Your task to perform on an android device: open chrome and create a bookmark for the current page Image 0: 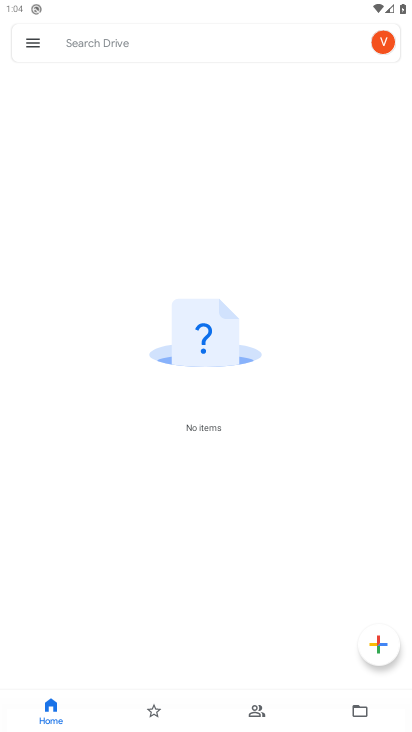
Step 0: press home button
Your task to perform on an android device: open chrome and create a bookmark for the current page Image 1: 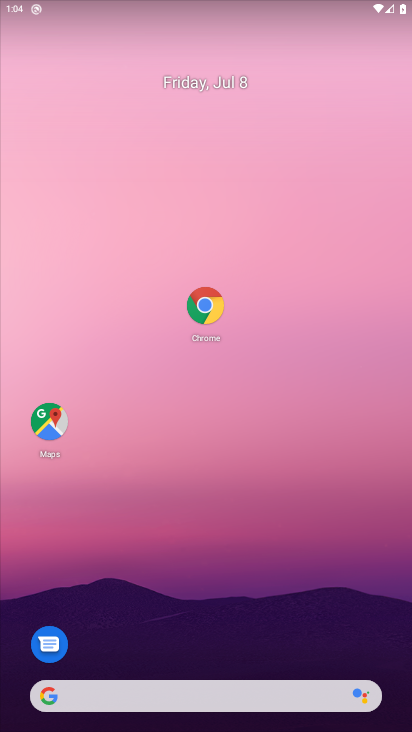
Step 1: click (202, 313)
Your task to perform on an android device: open chrome and create a bookmark for the current page Image 2: 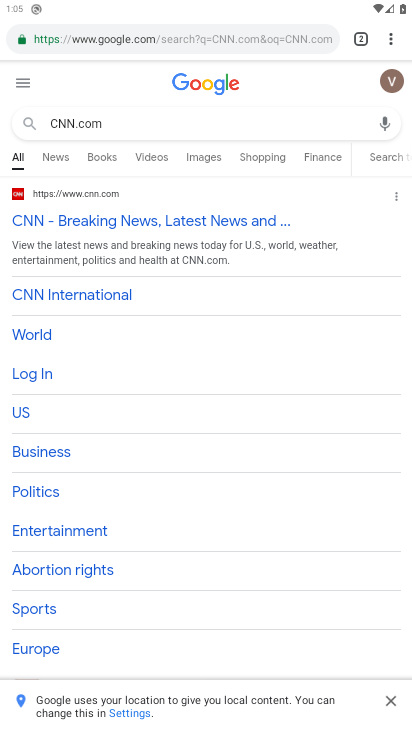
Step 2: click (386, 36)
Your task to perform on an android device: open chrome and create a bookmark for the current page Image 3: 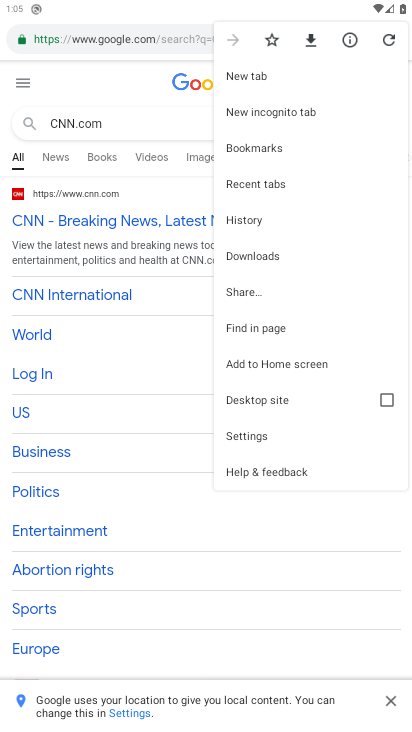
Step 3: click (268, 37)
Your task to perform on an android device: open chrome and create a bookmark for the current page Image 4: 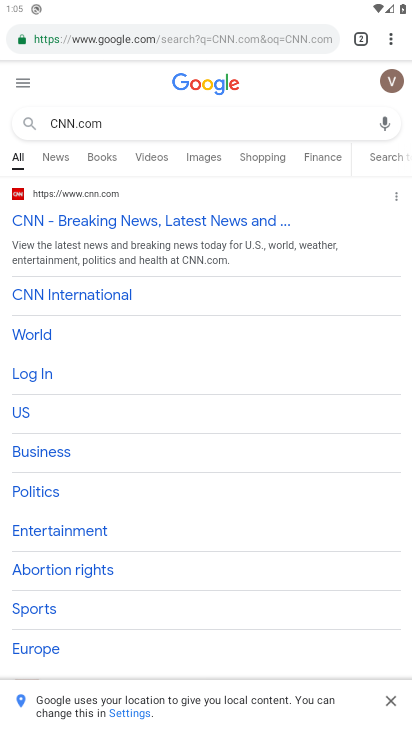
Step 4: task complete